Your task to perform on an android device: turn on notifications settings in the gmail app Image 0: 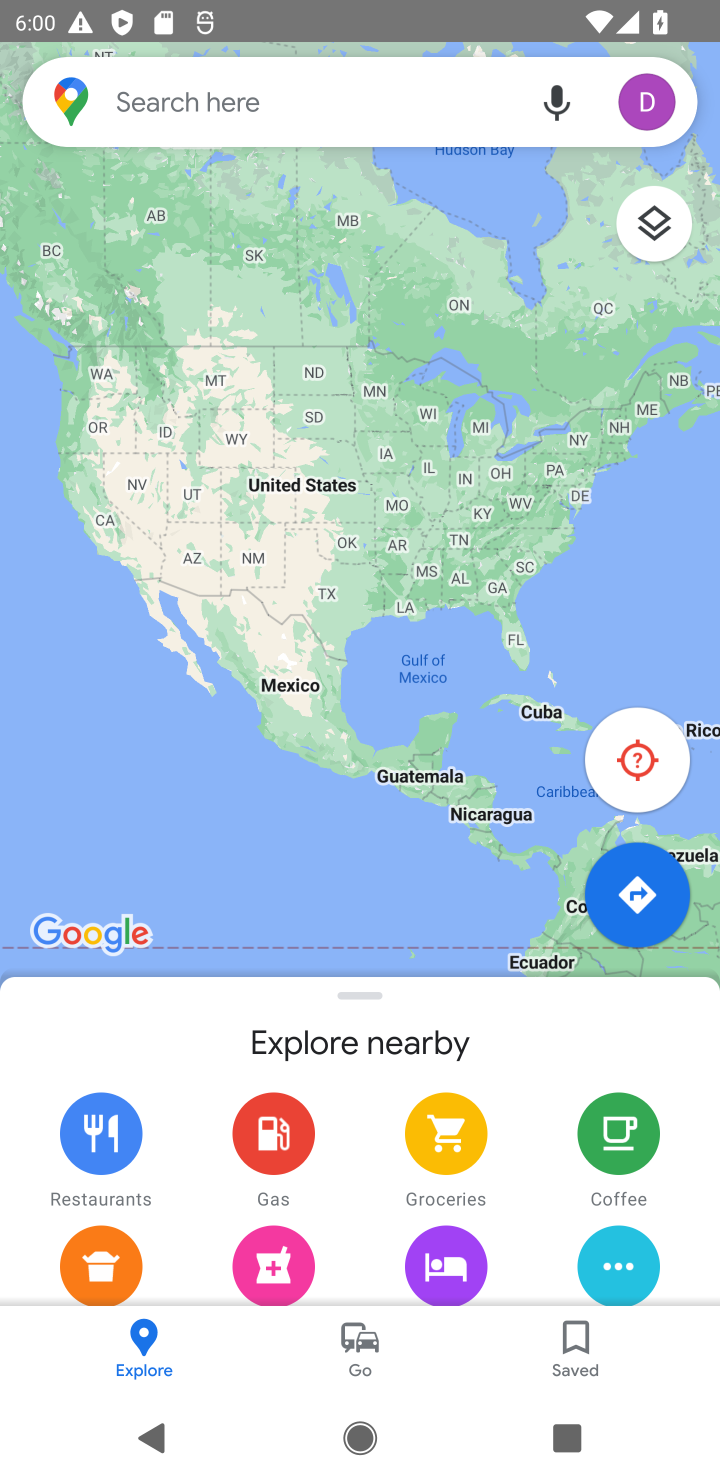
Step 0: press home button
Your task to perform on an android device: turn on notifications settings in the gmail app Image 1: 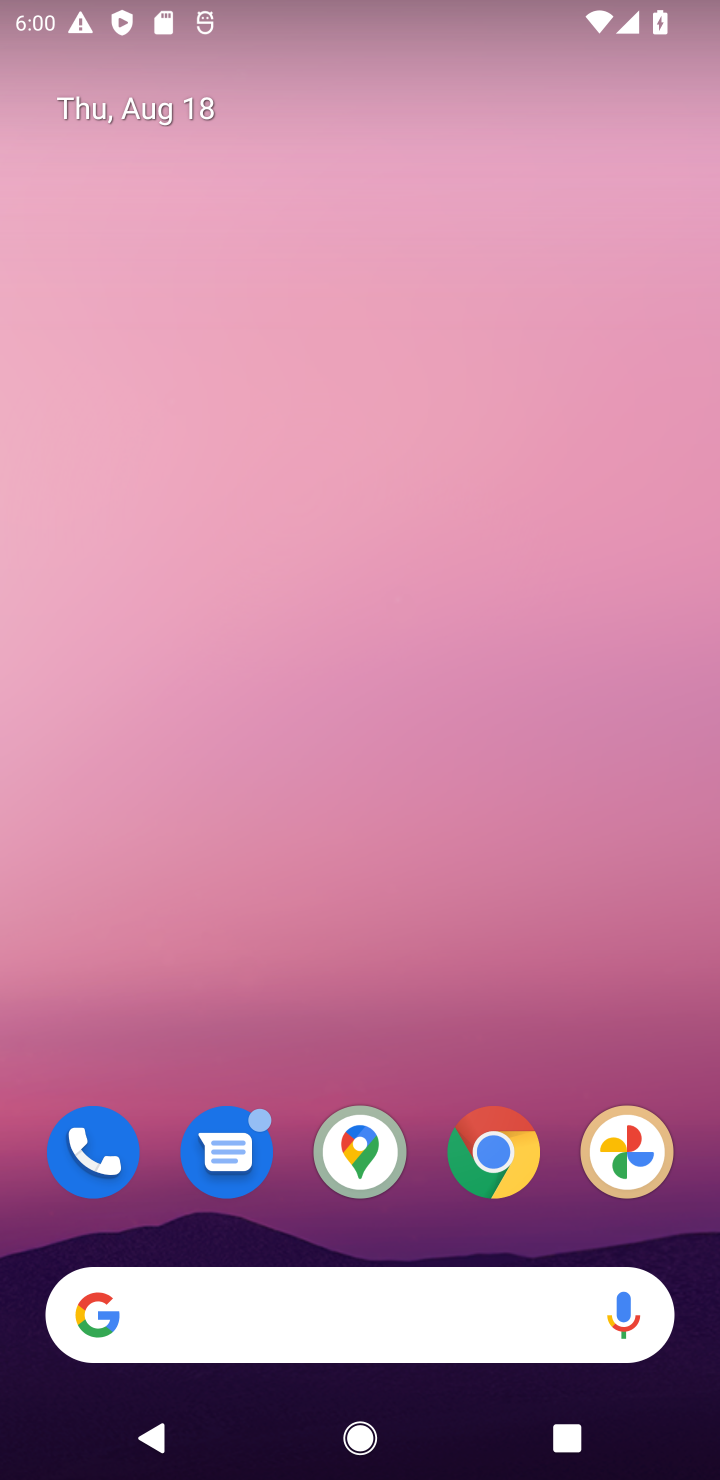
Step 1: drag from (512, 1214) to (522, 170)
Your task to perform on an android device: turn on notifications settings in the gmail app Image 2: 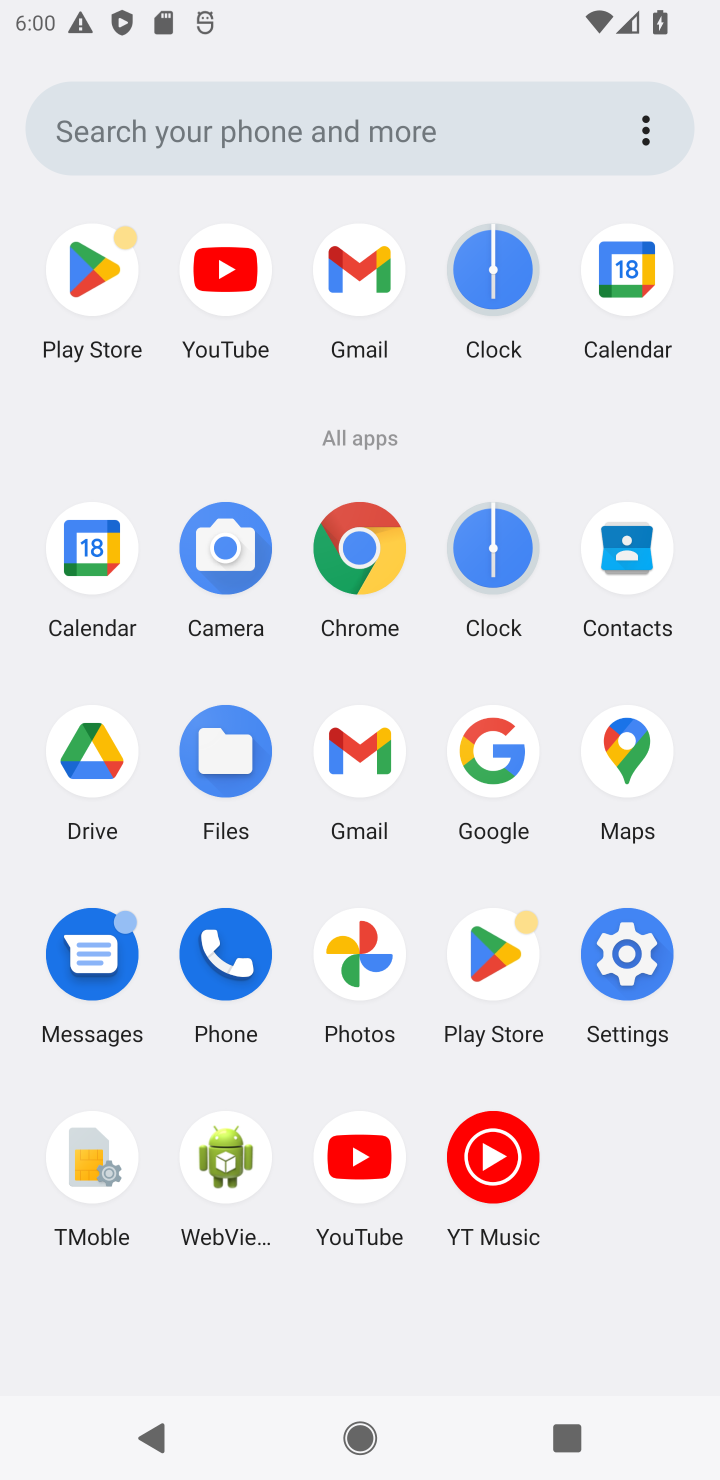
Step 2: click (341, 780)
Your task to perform on an android device: turn on notifications settings in the gmail app Image 3: 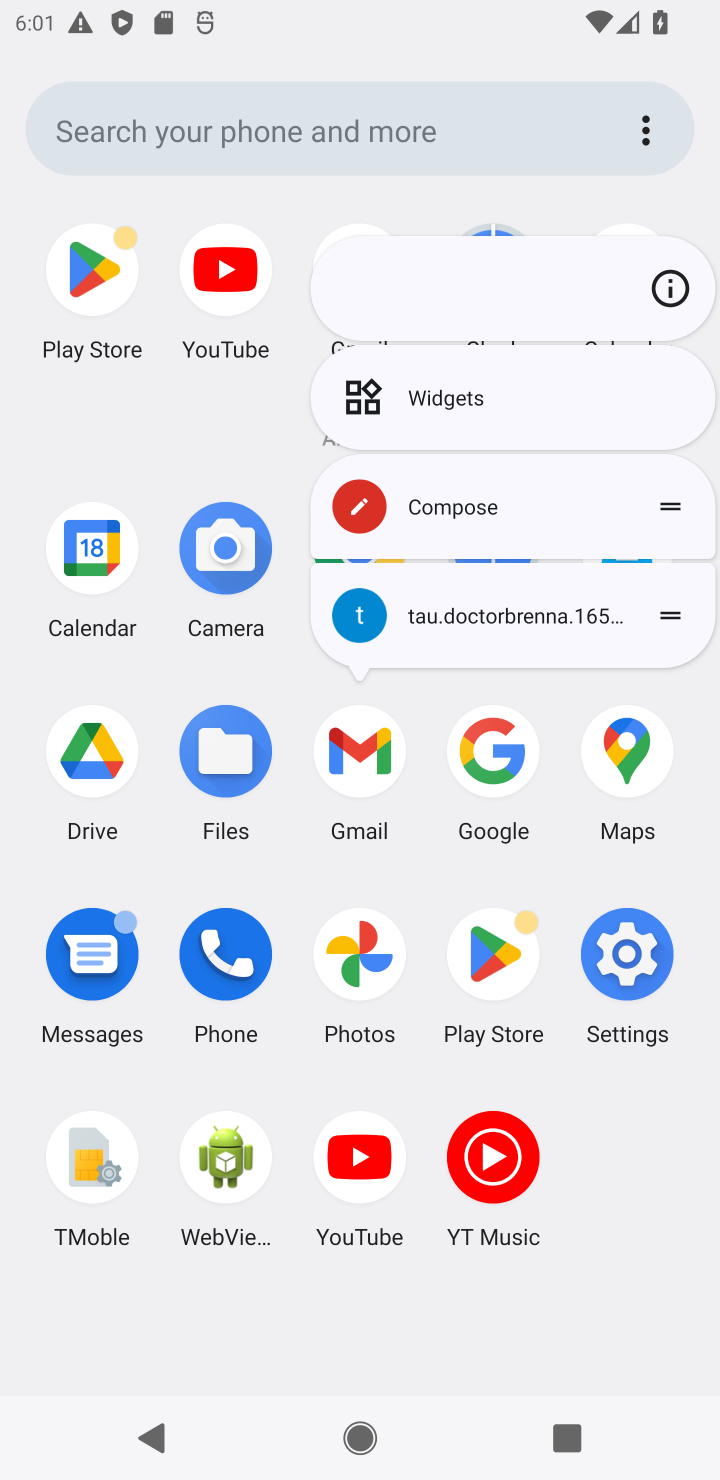
Step 3: click (675, 276)
Your task to perform on an android device: turn on notifications settings in the gmail app Image 4: 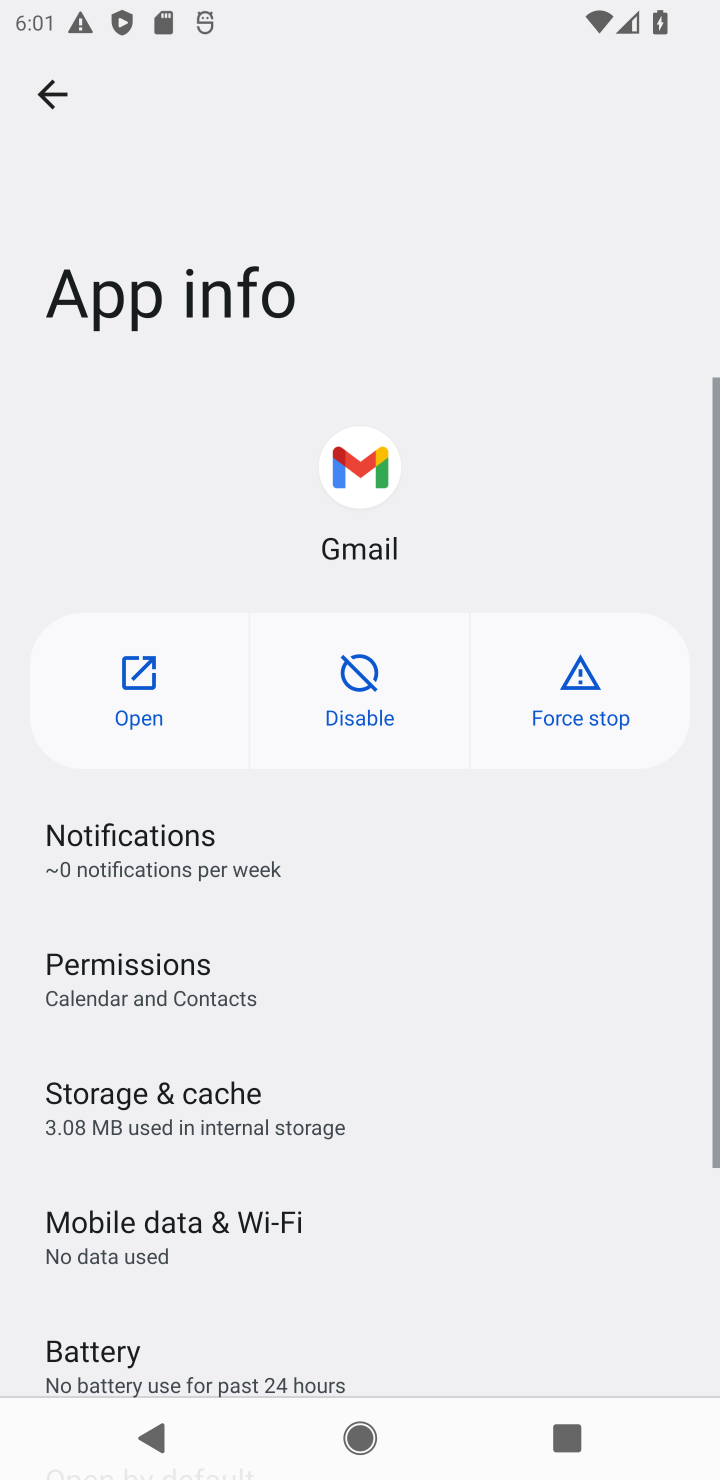
Step 4: click (258, 853)
Your task to perform on an android device: turn on notifications settings in the gmail app Image 5: 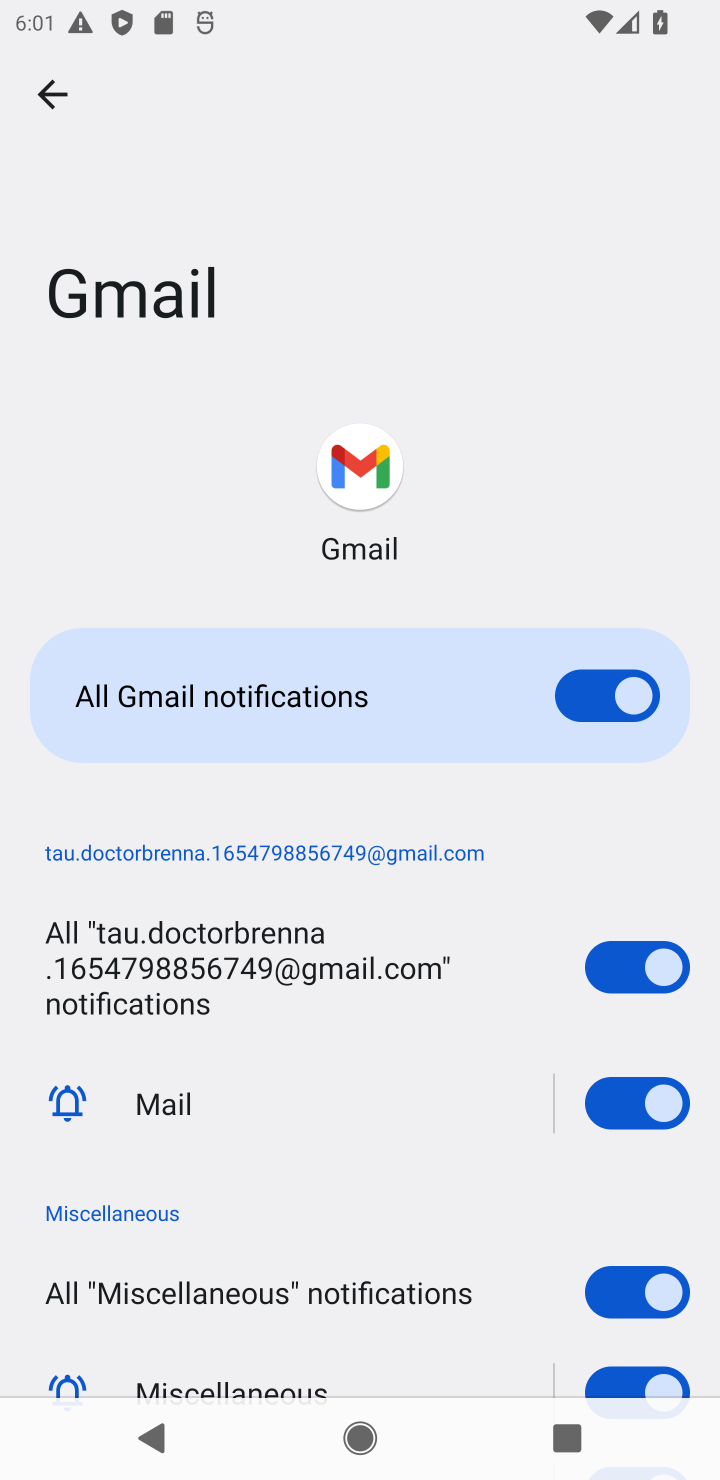
Step 5: task complete